Your task to perform on an android device: Go to display settings Image 0: 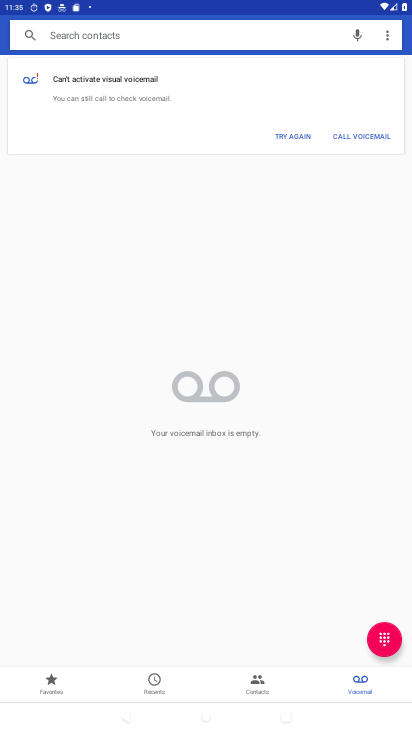
Step 0: press home button
Your task to perform on an android device: Go to display settings Image 1: 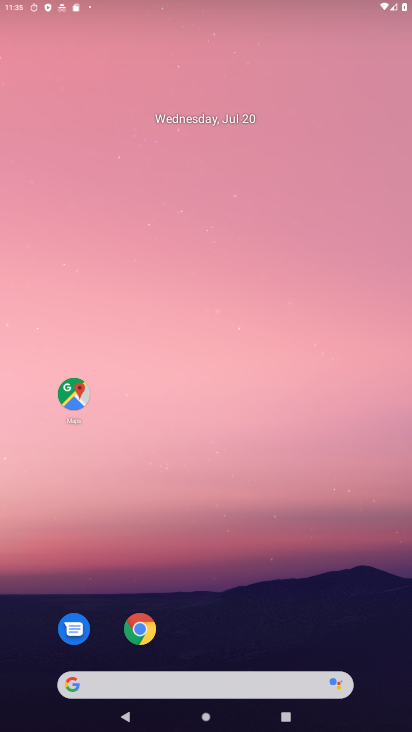
Step 1: drag from (256, 593) to (251, 0)
Your task to perform on an android device: Go to display settings Image 2: 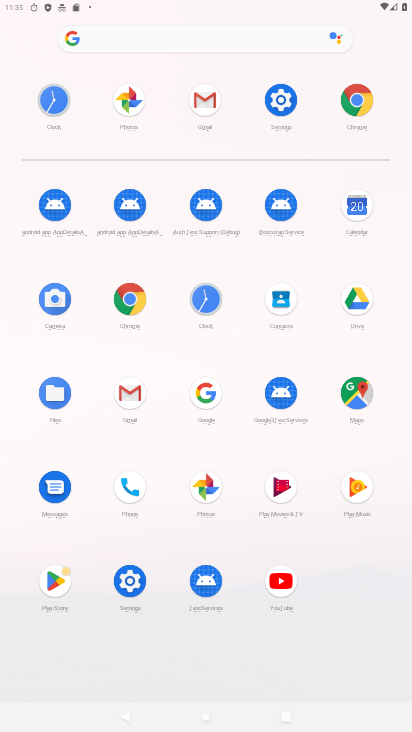
Step 2: click (289, 102)
Your task to perform on an android device: Go to display settings Image 3: 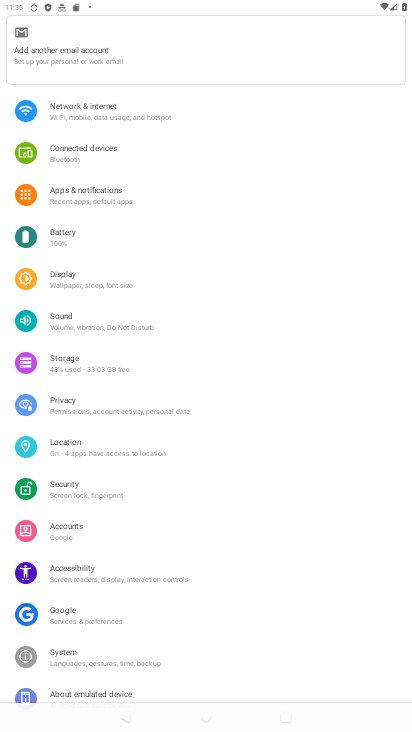
Step 3: click (70, 281)
Your task to perform on an android device: Go to display settings Image 4: 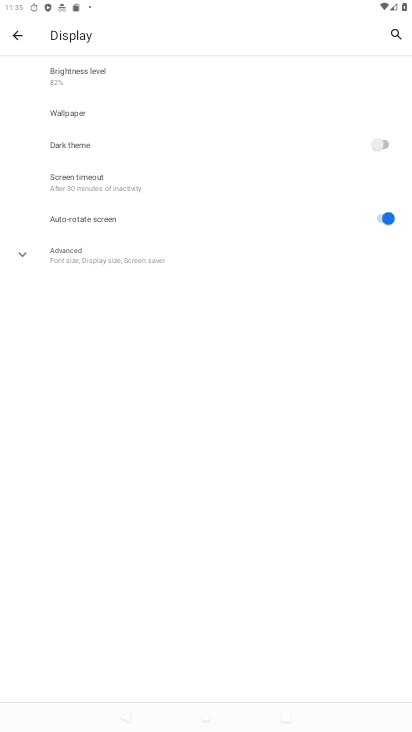
Step 4: task complete